Your task to perform on an android device: Go to calendar. Show me events next week Image 0: 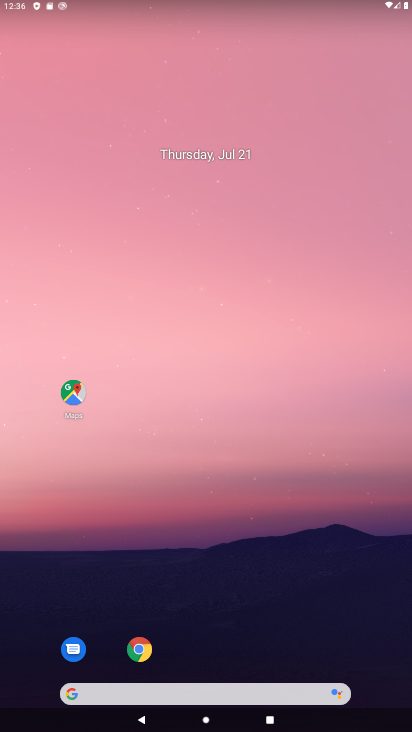
Step 0: drag from (261, 675) to (261, 62)
Your task to perform on an android device: Go to calendar. Show me events next week Image 1: 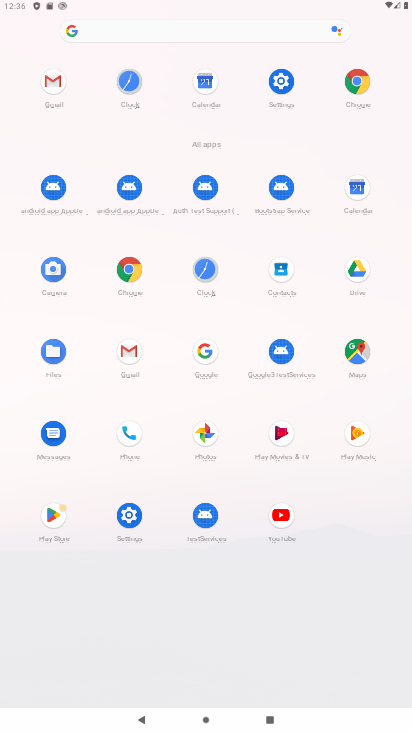
Step 1: click (214, 80)
Your task to perform on an android device: Go to calendar. Show me events next week Image 2: 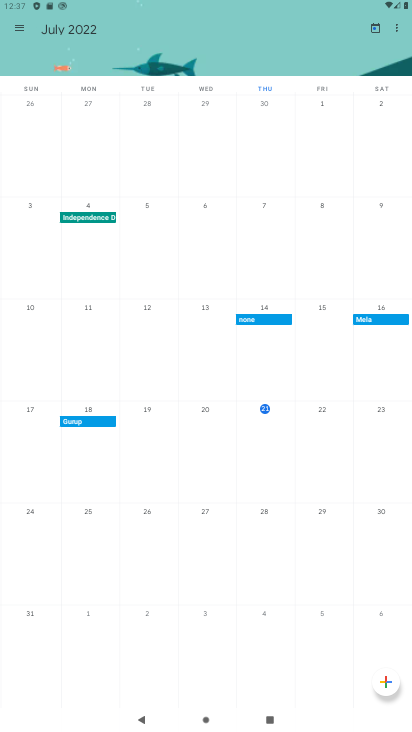
Step 2: task complete